Your task to perform on an android device: Clear all items from cart on bestbuy.com. Add "logitech g pro" to the cart on bestbuy.com Image 0: 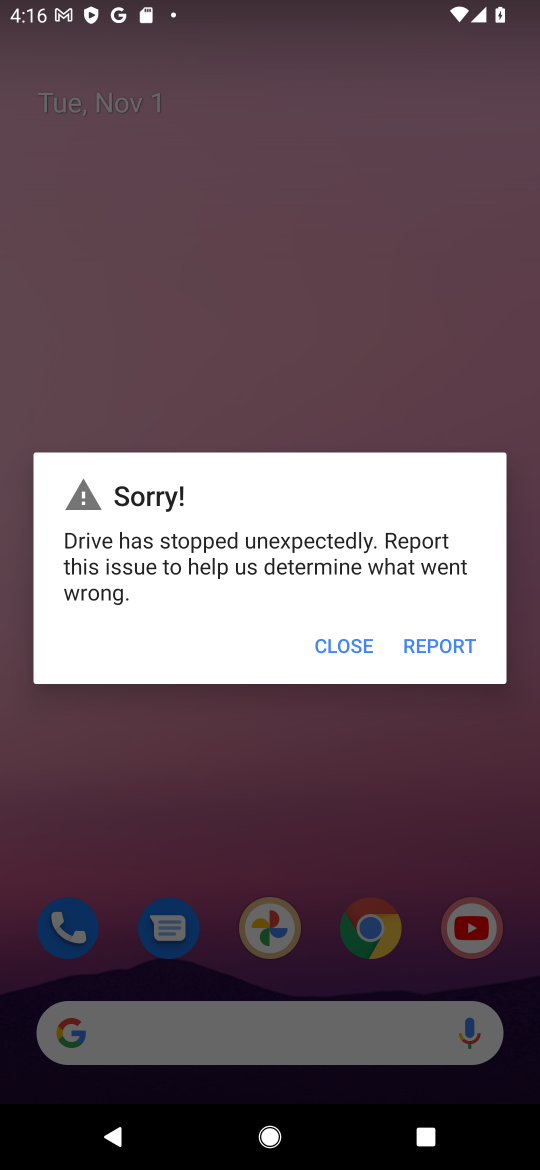
Step 0: press home button
Your task to perform on an android device: Clear all items from cart on bestbuy.com. Add "logitech g pro" to the cart on bestbuy.com Image 1: 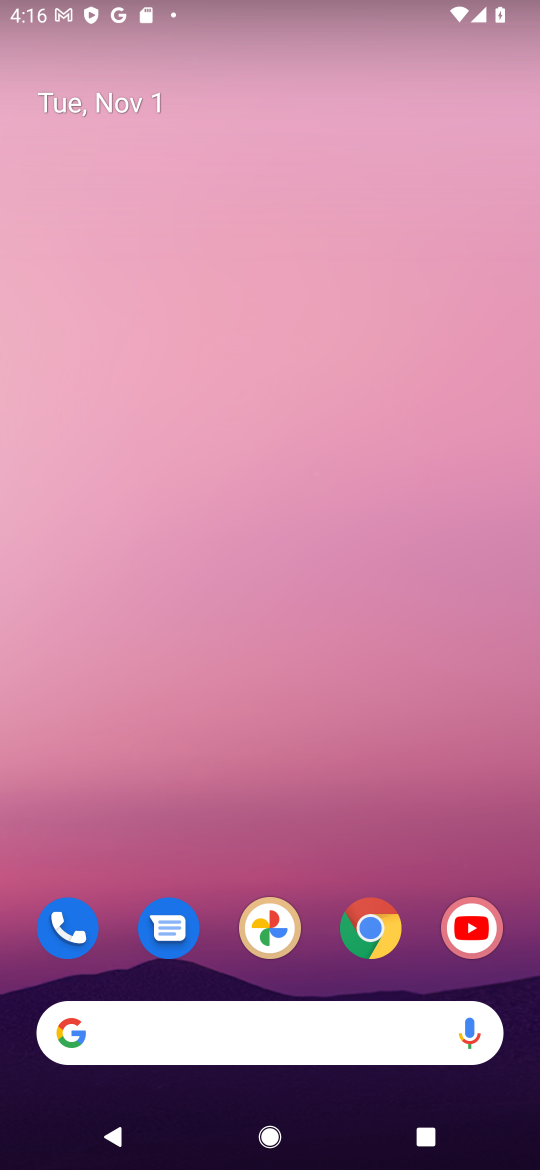
Step 1: click (372, 934)
Your task to perform on an android device: Clear all items from cart on bestbuy.com. Add "logitech g pro" to the cart on bestbuy.com Image 2: 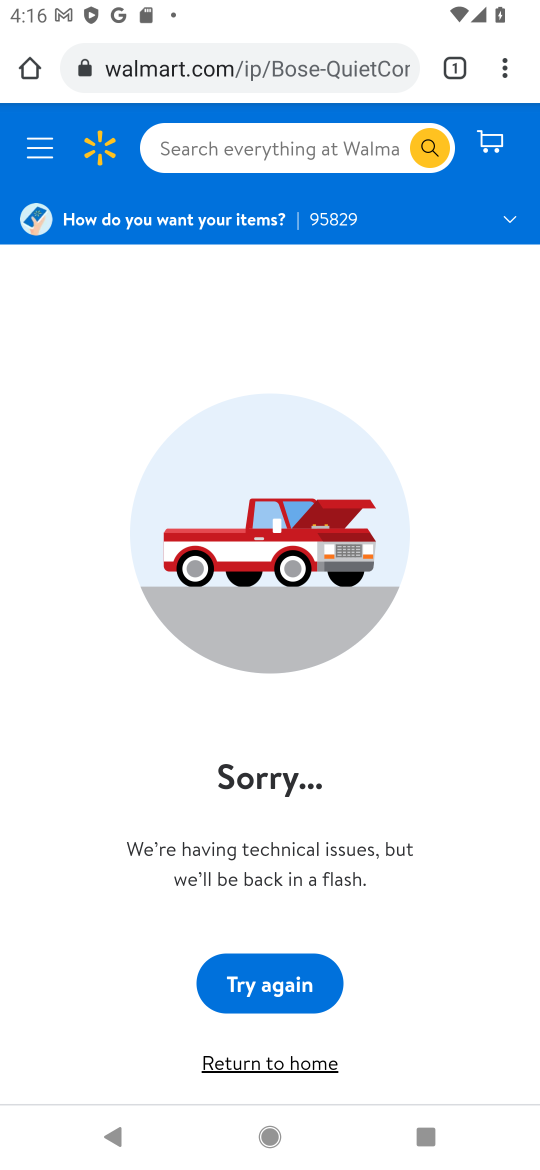
Step 2: click (238, 77)
Your task to perform on an android device: Clear all items from cart on bestbuy.com. Add "logitech g pro" to the cart on bestbuy.com Image 3: 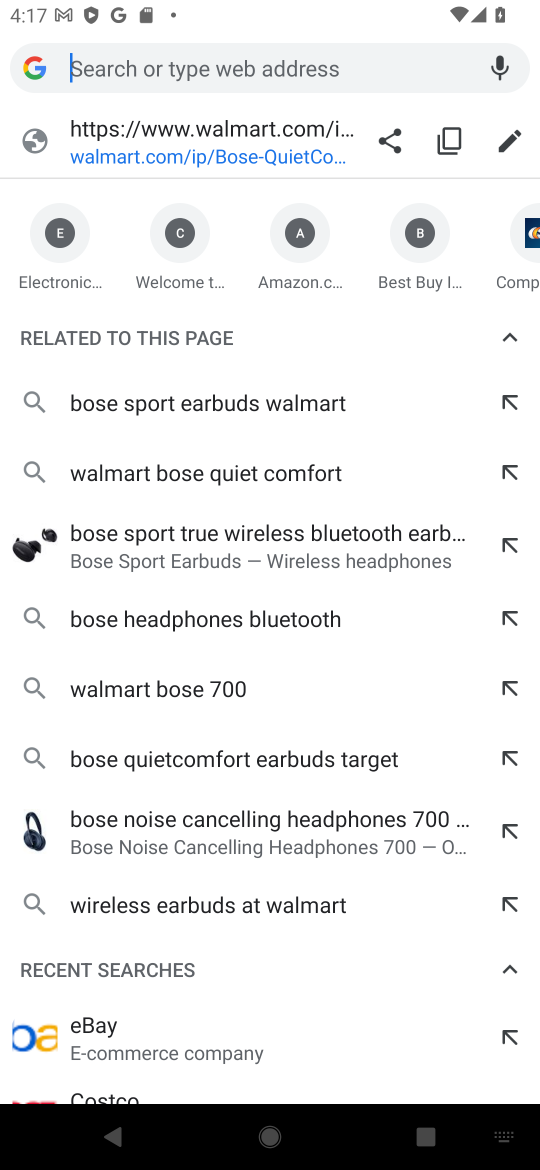
Step 3: type "bestbuy.com"
Your task to perform on an android device: Clear all items from cart on bestbuy.com. Add "logitech g pro" to the cart on bestbuy.com Image 4: 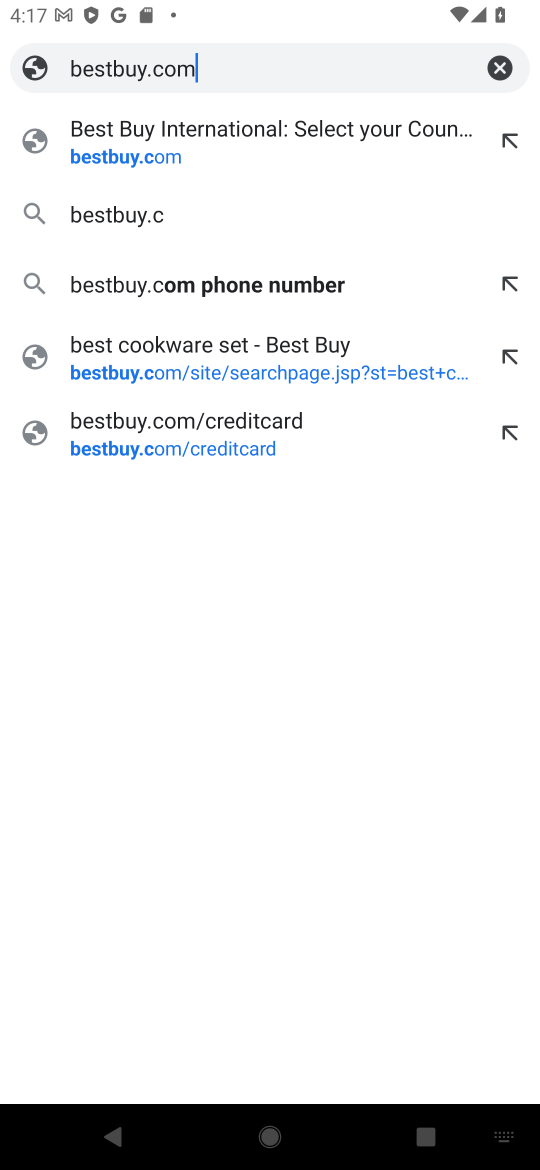
Step 4: type ""
Your task to perform on an android device: Clear all items from cart on bestbuy.com. Add "logitech g pro" to the cart on bestbuy.com Image 5: 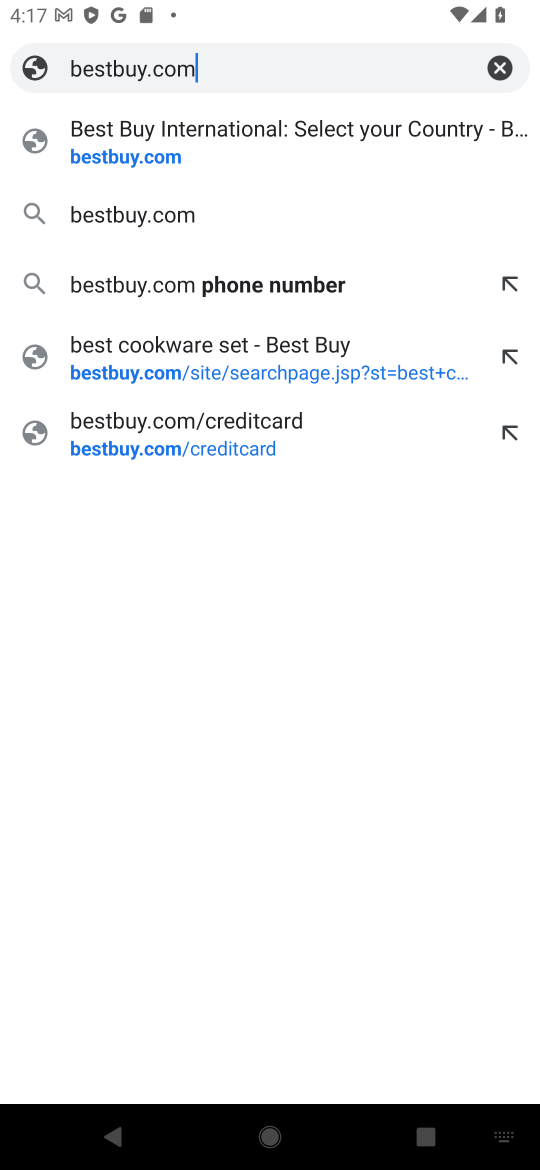
Step 5: press enter
Your task to perform on an android device: Clear all items from cart on bestbuy.com. Add "logitech g pro" to the cart on bestbuy.com Image 6: 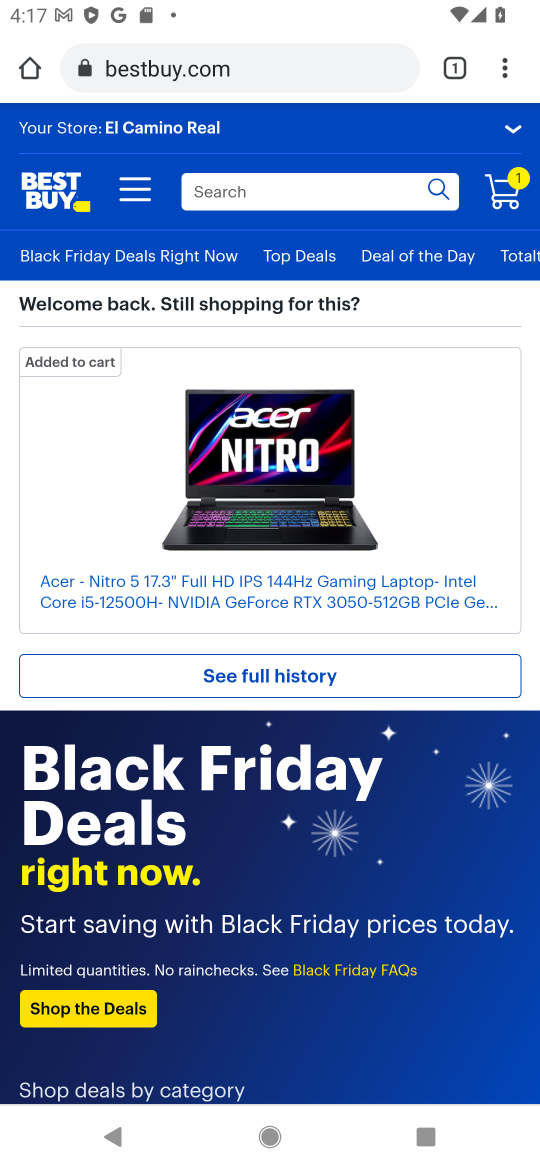
Step 6: click (499, 189)
Your task to perform on an android device: Clear all items from cart on bestbuy.com. Add "logitech g pro" to the cart on bestbuy.com Image 7: 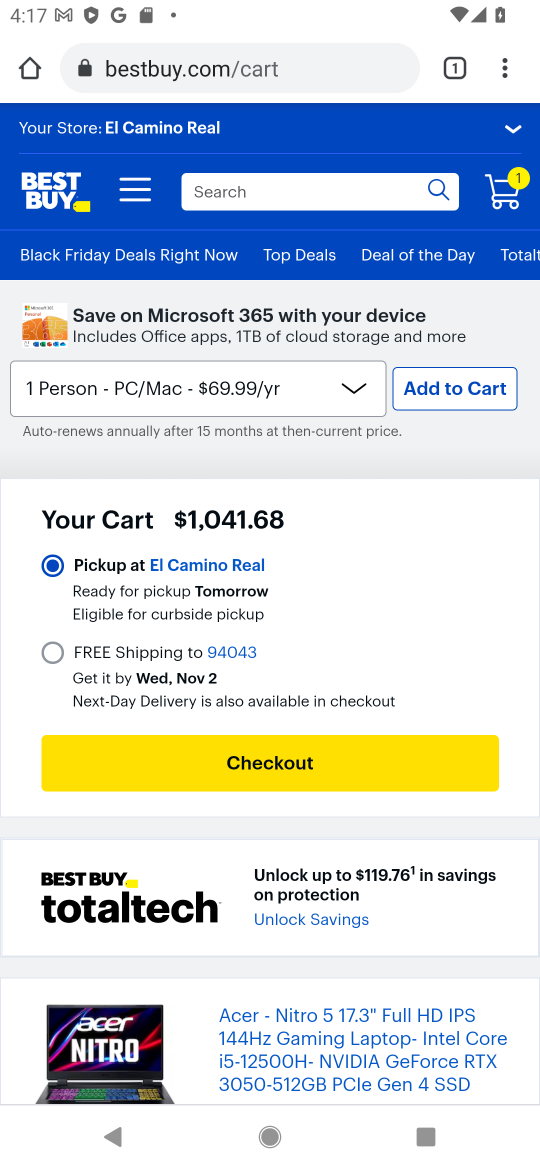
Step 7: drag from (304, 973) to (213, 470)
Your task to perform on an android device: Clear all items from cart on bestbuy.com. Add "logitech g pro" to the cart on bestbuy.com Image 8: 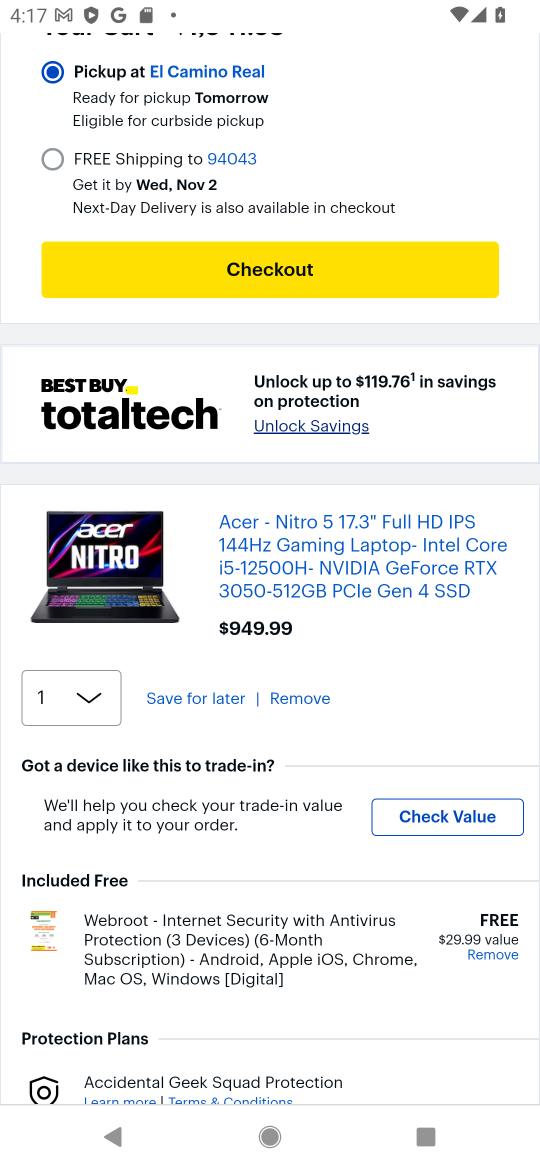
Step 8: click (294, 700)
Your task to perform on an android device: Clear all items from cart on bestbuy.com. Add "logitech g pro" to the cart on bestbuy.com Image 9: 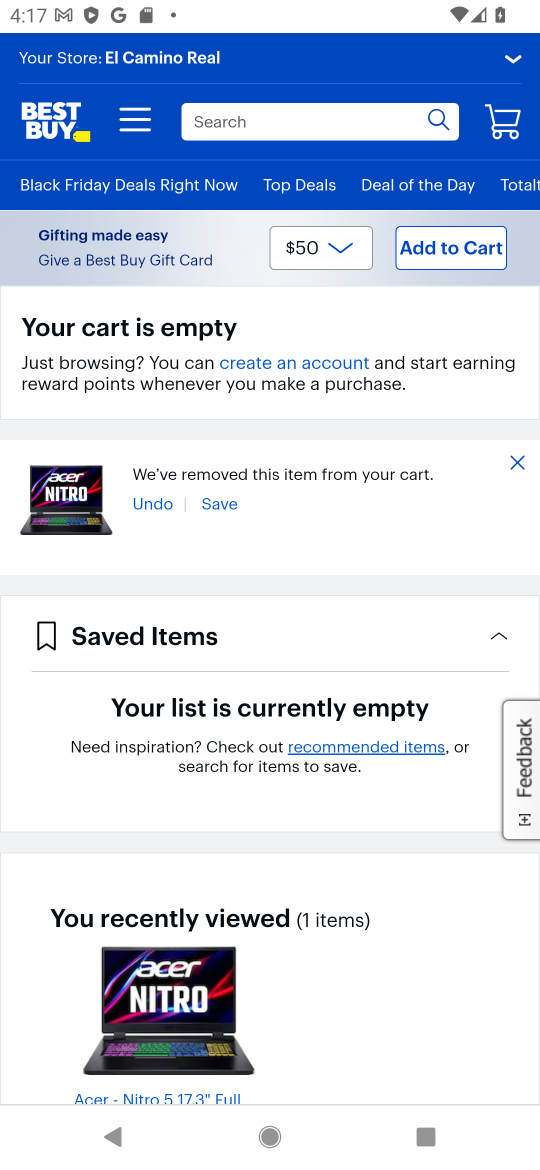
Step 9: click (278, 129)
Your task to perform on an android device: Clear all items from cart on bestbuy.com. Add "logitech g pro" to the cart on bestbuy.com Image 10: 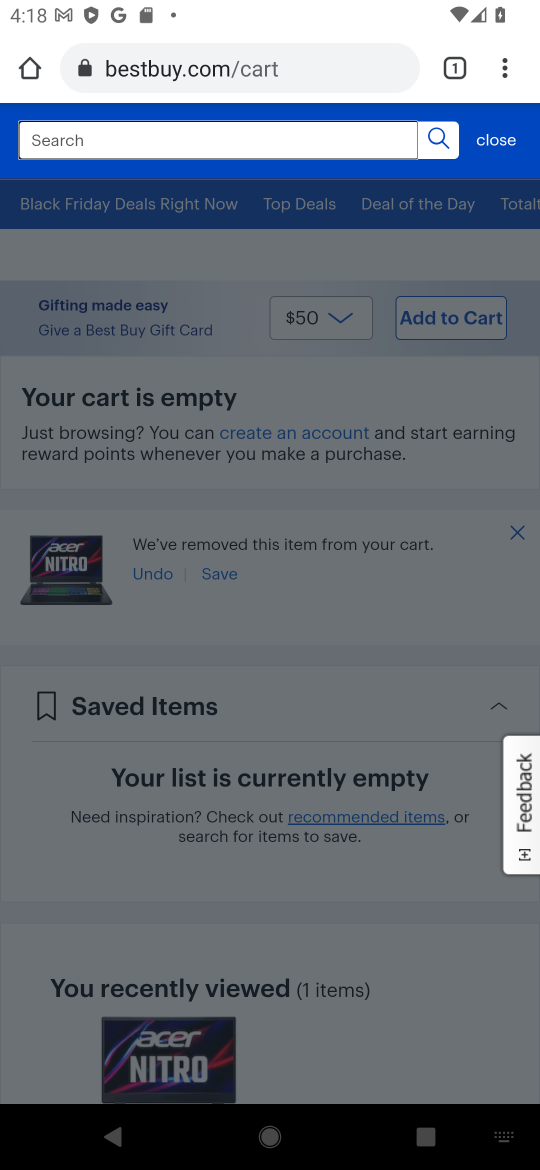
Step 10: type "logitech g pro"
Your task to perform on an android device: Clear all items from cart on bestbuy.com. Add "logitech g pro" to the cart on bestbuy.com Image 11: 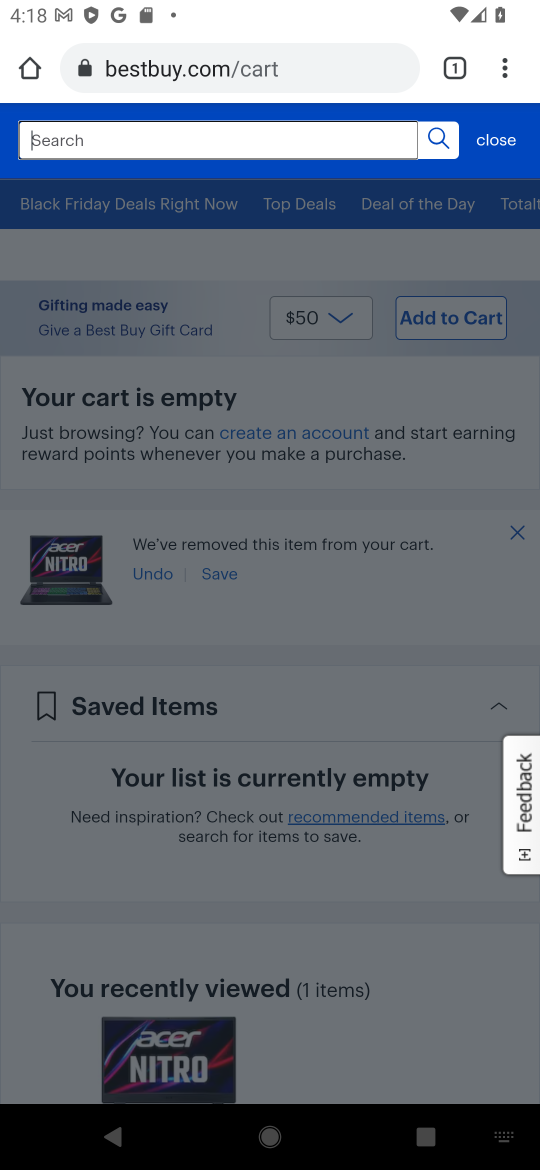
Step 11: type ""
Your task to perform on an android device: Clear all items from cart on bestbuy.com. Add "logitech g pro" to the cart on bestbuy.com Image 12: 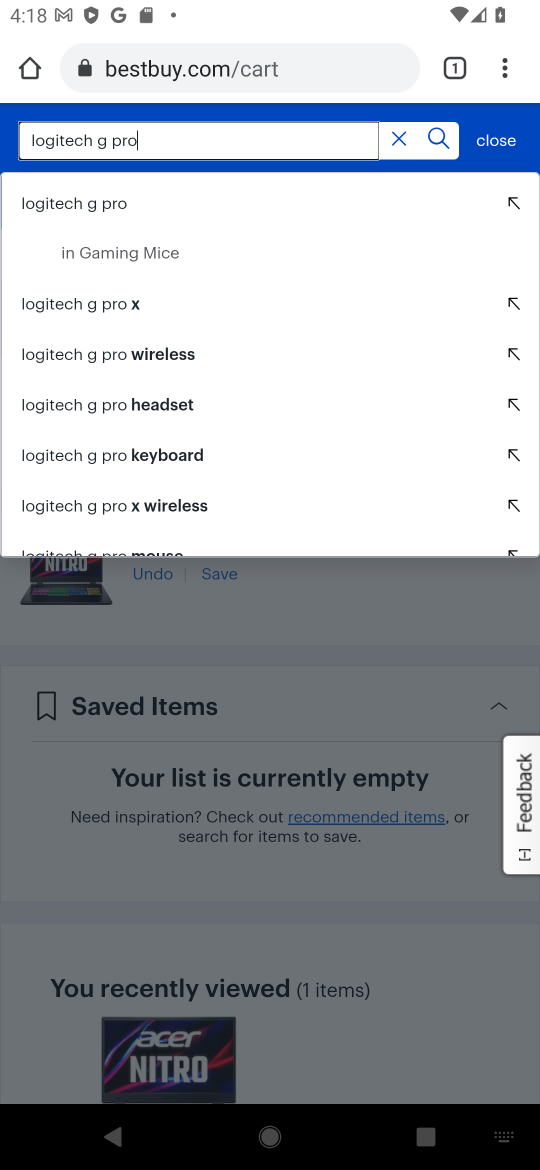
Step 12: press enter
Your task to perform on an android device: Clear all items from cart on bestbuy.com. Add "logitech g pro" to the cart on bestbuy.com Image 13: 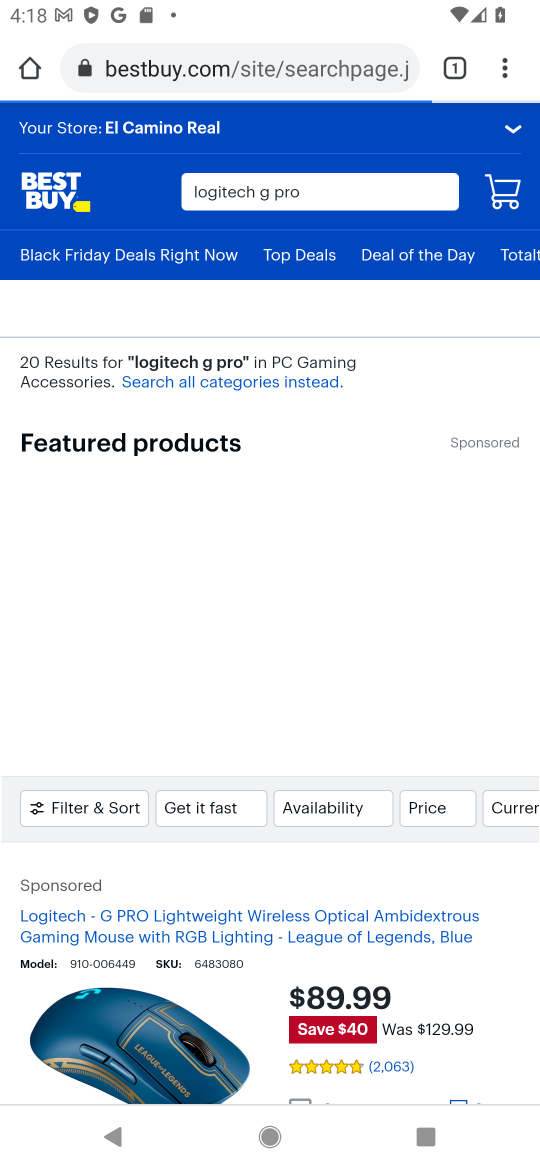
Step 13: drag from (328, 884) to (329, 434)
Your task to perform on an android device: Clear all items from cart on bestbuy.com. Add "logitech g pro" to the cart on bestbuy.com Image 14: 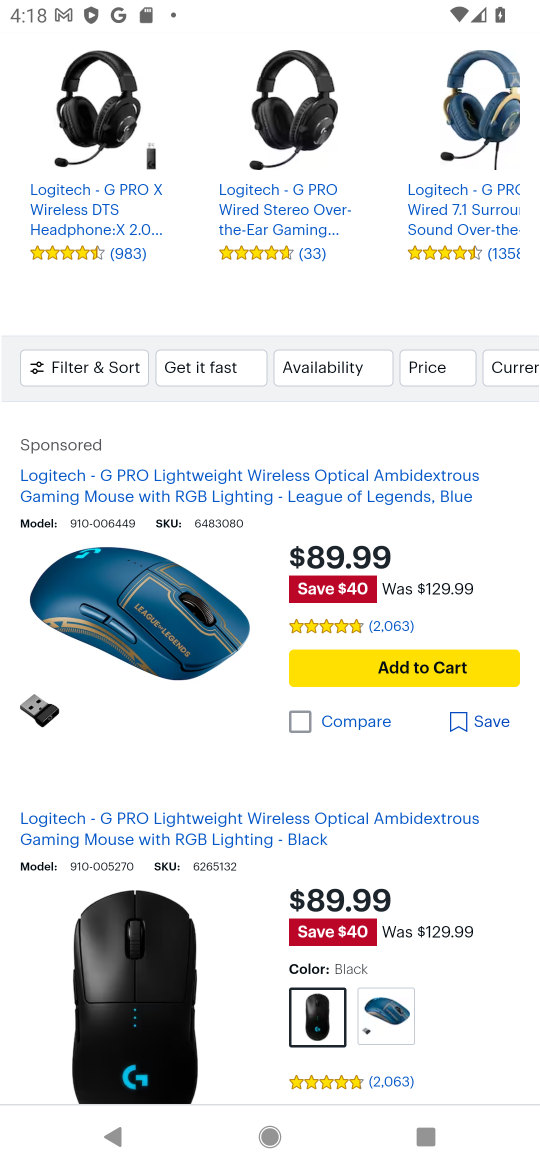
Step 14: click (282, 499)
Your task to perform on an android device: Clear all items from cart on bestbuy.com. Add "logitech g pro" to the cart on bestbuy.com Image 15: 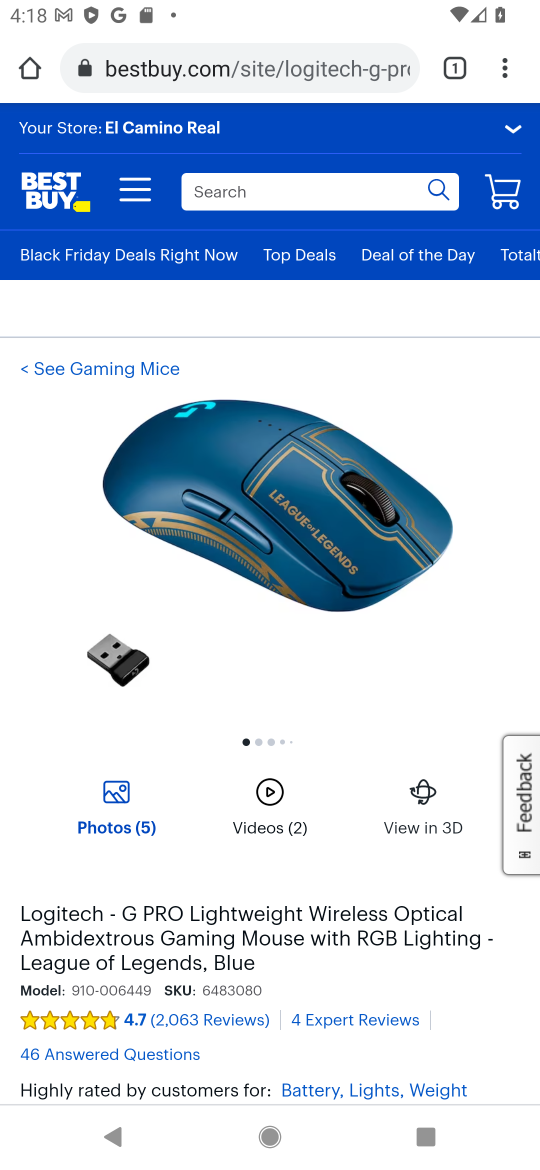
Step 15: drag from (283, 794) to (211, 293)
Your task to perform on an android device: Clear all items from cart on bestbuy.com. Add "logitech g pro" to the cart on bestbuy.com Image 16: 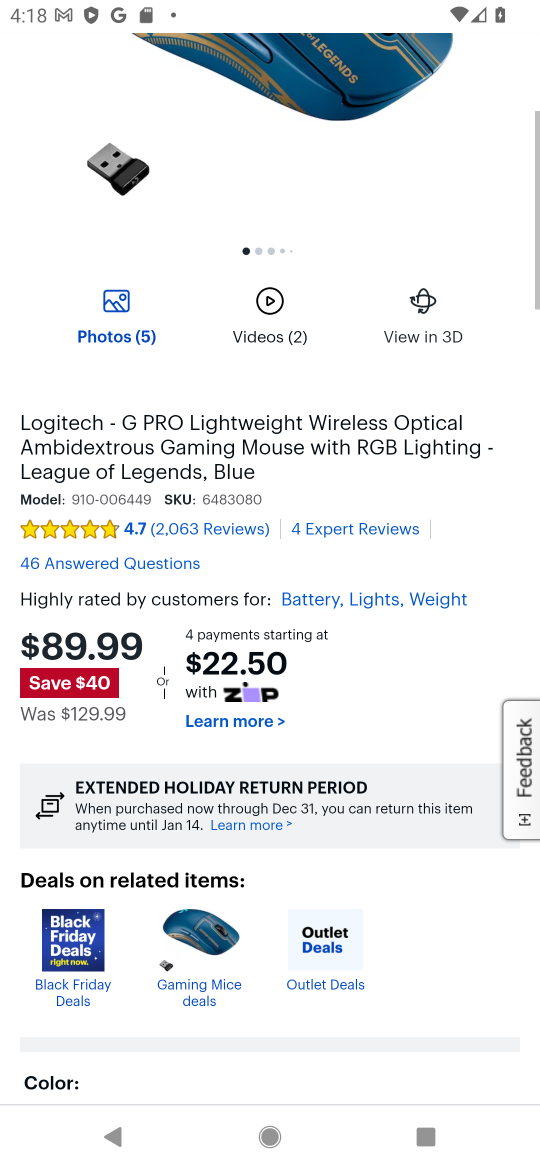
Step 16: drag from (439, 979) to (347, 305)
Your task to perform on an android device: Clear all items from cart on bestbuy.com. Add "logitech g pro" to the cart on bestbuy.com Image 17: 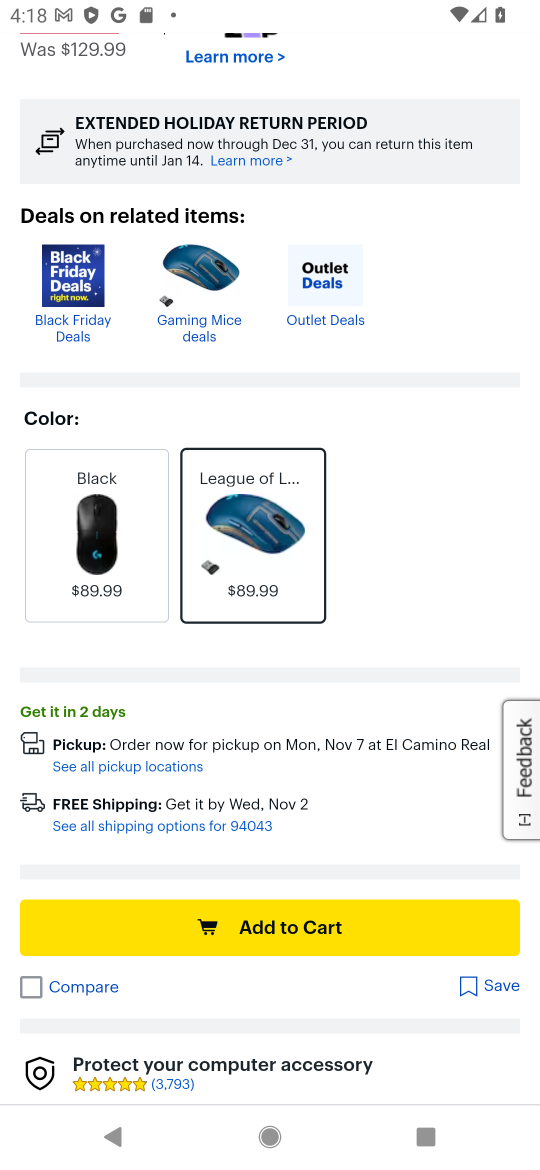
Step 17: click (324, 929)
Your task to perform on an android device: Clear all items from cart on bestbuy.com. Add "logitech g pro" to the cart on bestbuy.com Image 18: 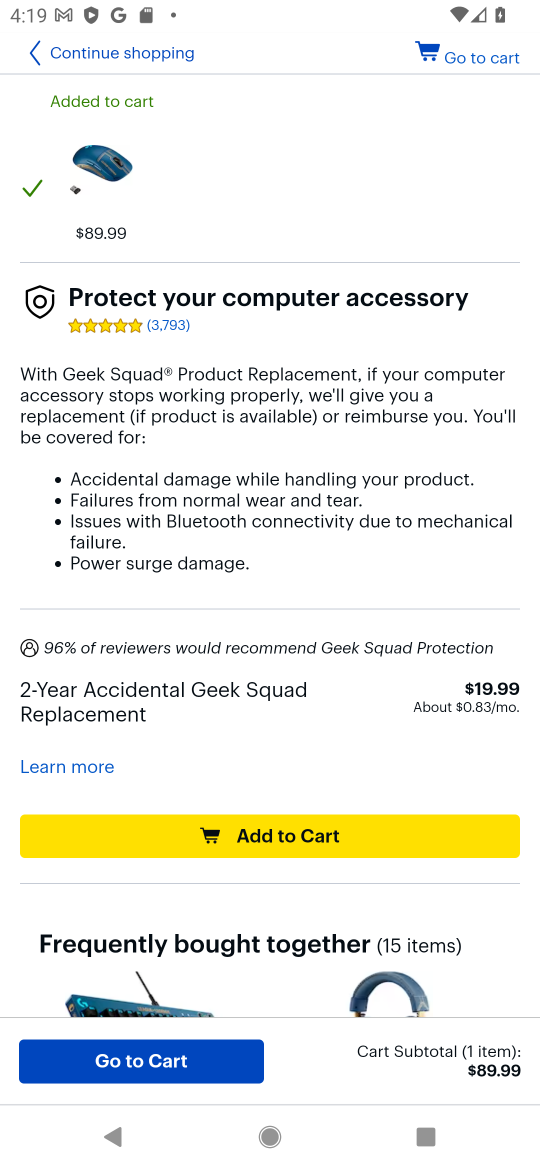
Step 18: click (191, 1078)
Your task to perform on an android device: Clear all items from cart on bestbuy.com. Add "logitech g pro" to the cart on bestbuy.com Image 19: 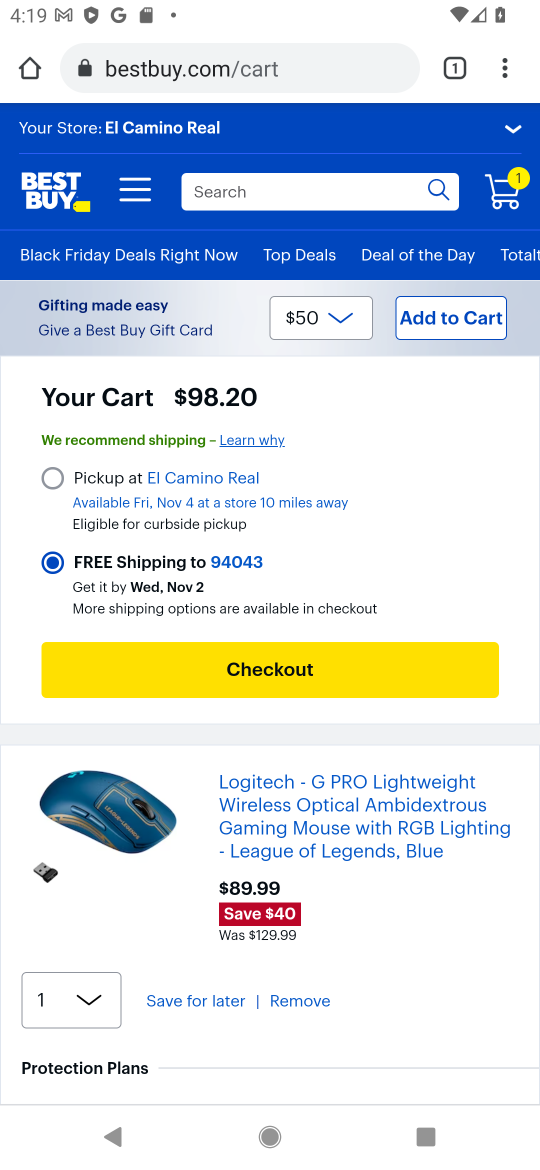
Step 19: task complete